Your task to perform on an android device: Show me productivity apps on the Play Store Image 0: 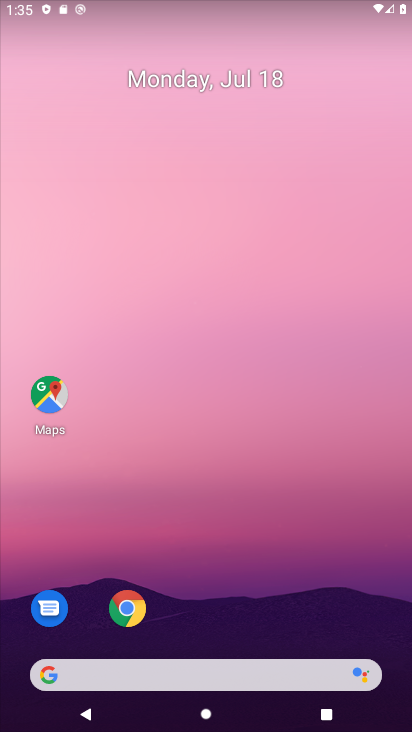
Step 0: drag from (223, 674) to (154, 108)
Your task to perform on an android device: Show me productivity apps on the Play Store Image 1: 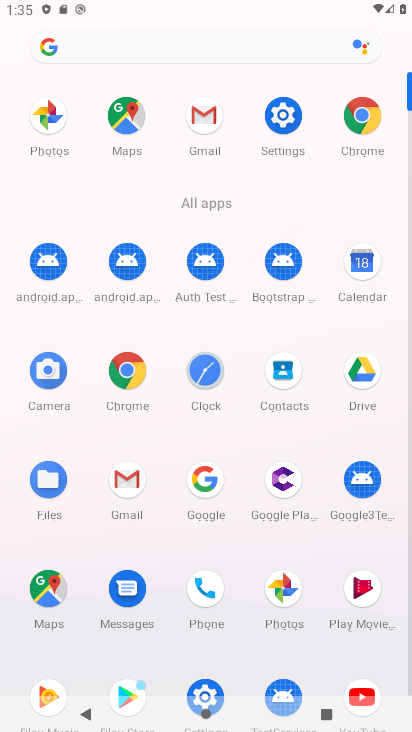
Step 1: click (134, 684)
Your task to perform on an android device: Show me productivity apps on the Play Store Image 2: 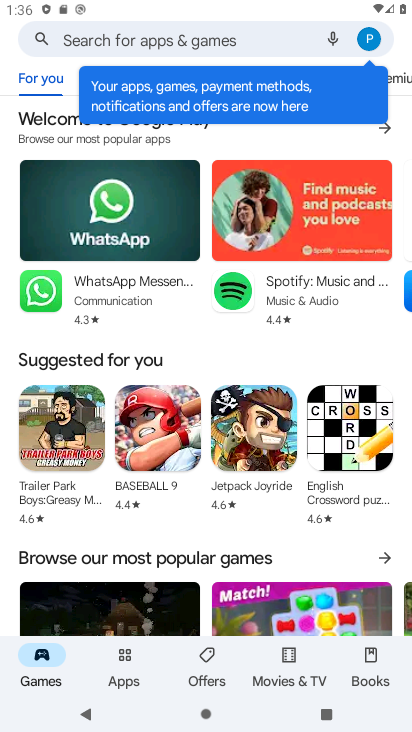
Step 2: click (130, 664)
Your task to perform on an android device: Show me productivity apps on the Play Store Image 3: 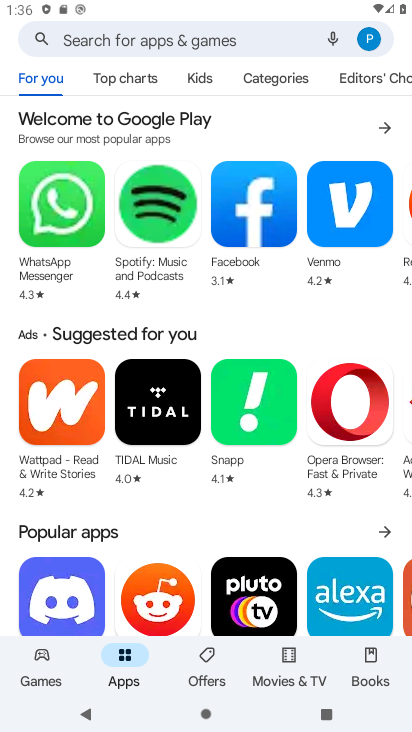
Step 3: click (254, 83)
Your task to perform on an android device: Show me productivity apps on the Play Store Image 4: 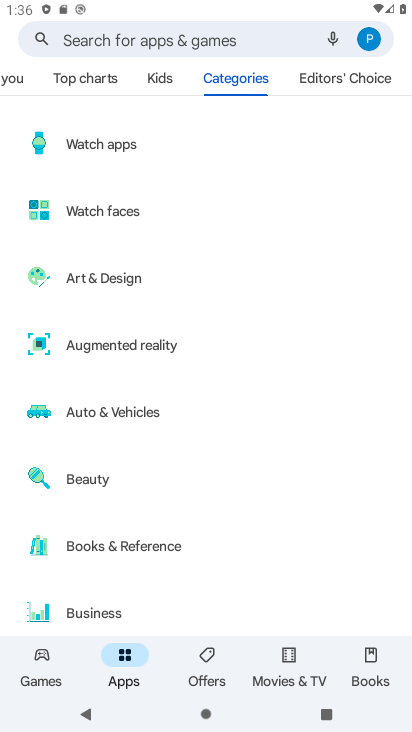
Step 4: drag from (91, 538) to (73, 78)
Your task to perform on an android device: Show me productivity apps on the Play Store Image 5: 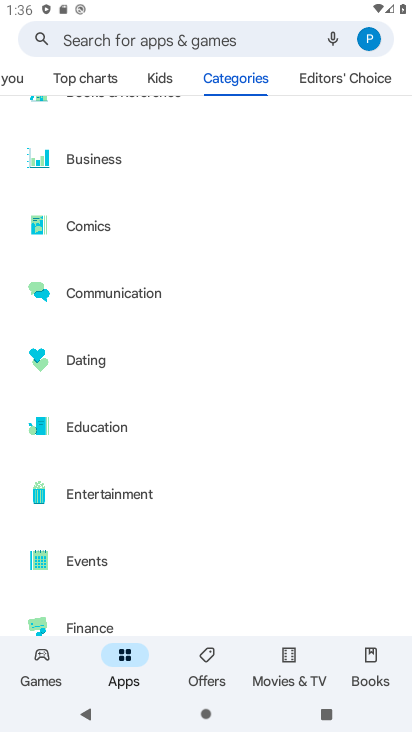
Step 5: drag from (141, 542) to (112, 5)
Your task to perform on an android device: Show me productivity apps on the Play Store Image 6: 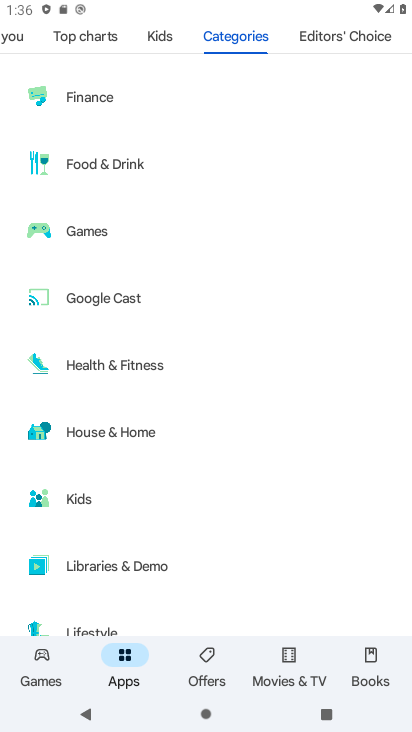
Step 6: drag from (179, 545) to (104, 12)
Your task to perform on an android device: Show me productivity apps on the Play Store Image 7: 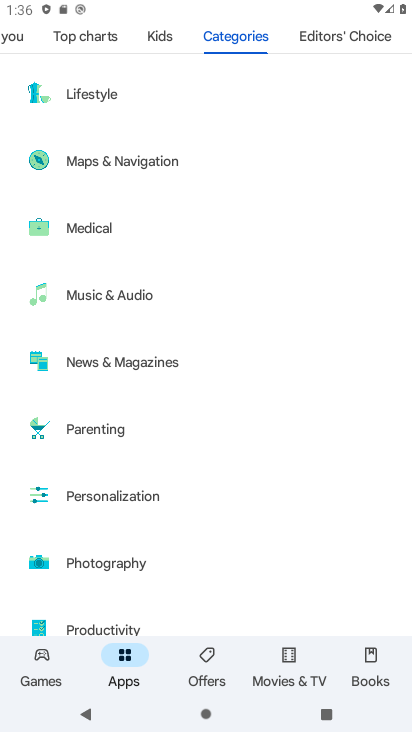
Step 7: drag from (158, 563) to (161, 264)
Your task to perform on an android device: Show me productivity apps on the Play Store Image 8: 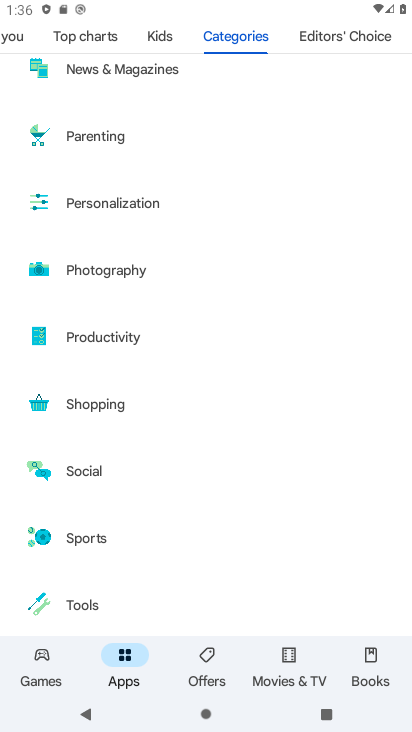
Step 8: click (106, 342)
Your task to perform on an android device: Show me productivity apps on the Play Store Image 9: 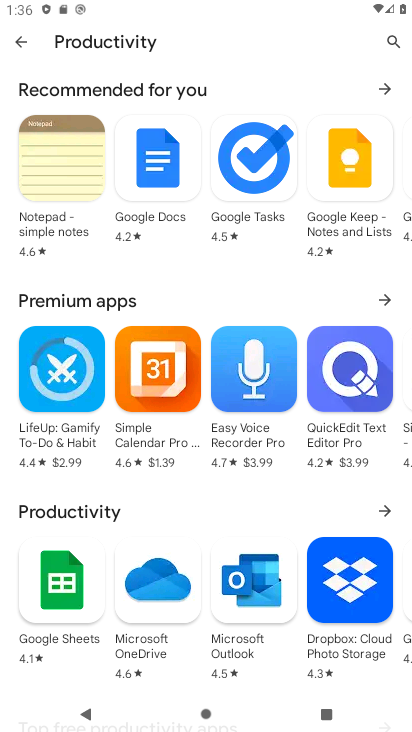
Step 9: task complete